Your task to perform on an android device: Set the phone to "Do not disturb". Image 0: 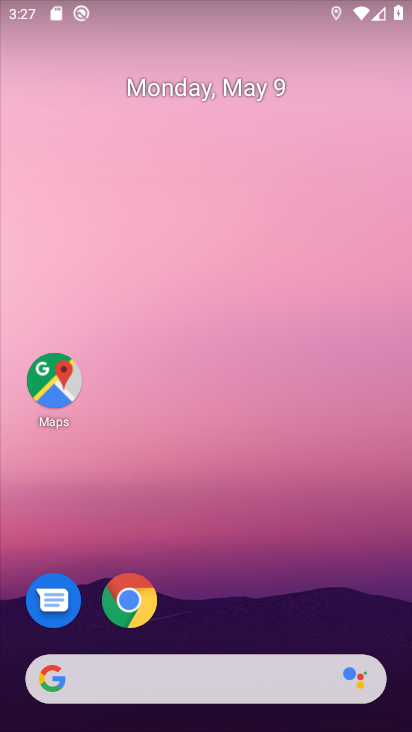
Step 0: drag from (228, 620) to (298, 100)
Your task to perform on an android device: Set the phone to "Do not disturb". Image 1: 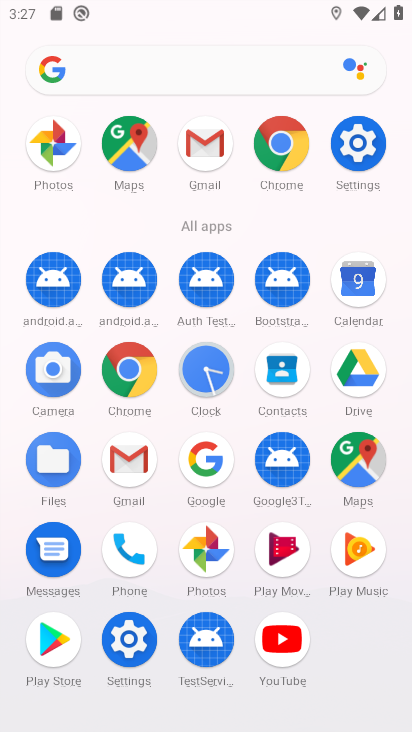
Step 1: click (367, 144)
Your task to perform on an android device: Set the phone to "Do not disturb". Image 2: 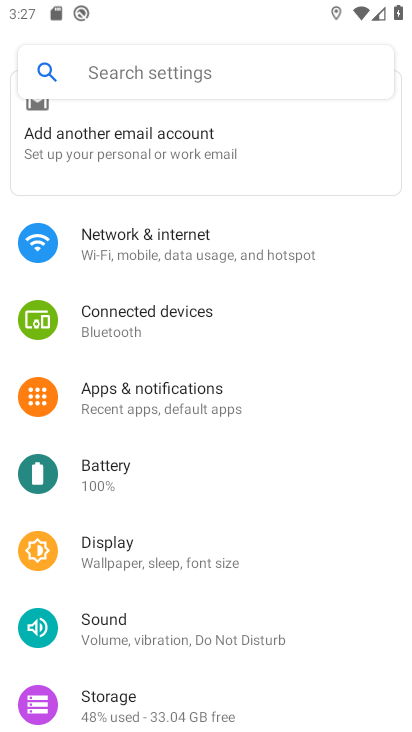
Step 2: click (159, 637)
Your task to perform on an android device: Set the phone to "Do not disturb". Image 3: 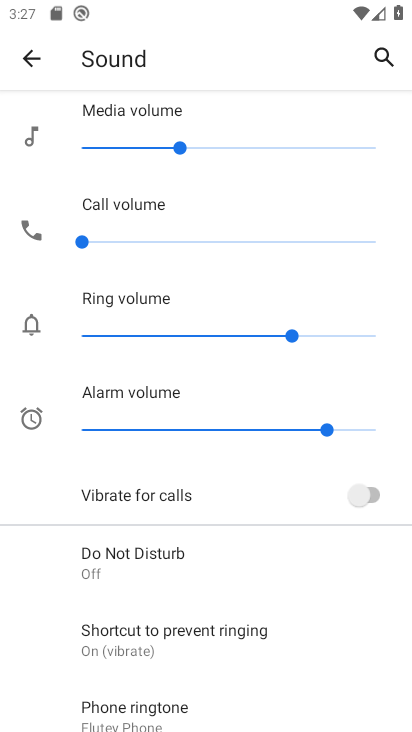
Step 3: click (127, 566)
Your task to perform on an android device: Set the phone to "Do not disturb". Image 4: 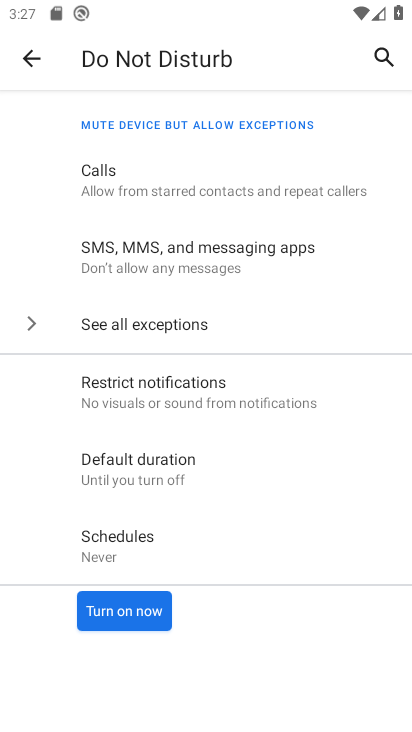
Step 4: click (123, 610)
Your task to perform on an android device: Set the phone to "Do not disturb". Image 5: 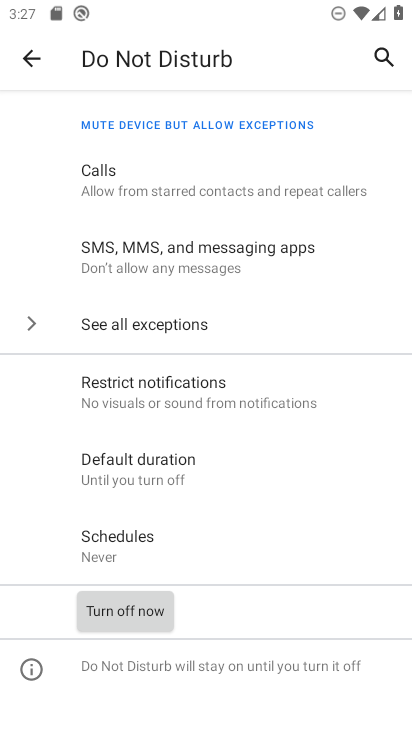
Step 5: task complete